Your task to perform on an android device: Open Android settings Image 0: 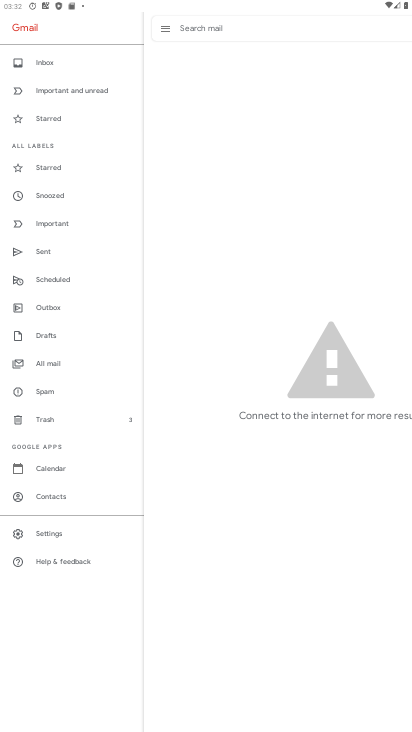
Step 0: press home button
Your task to perform on an android device: Open Android settings Image 1: 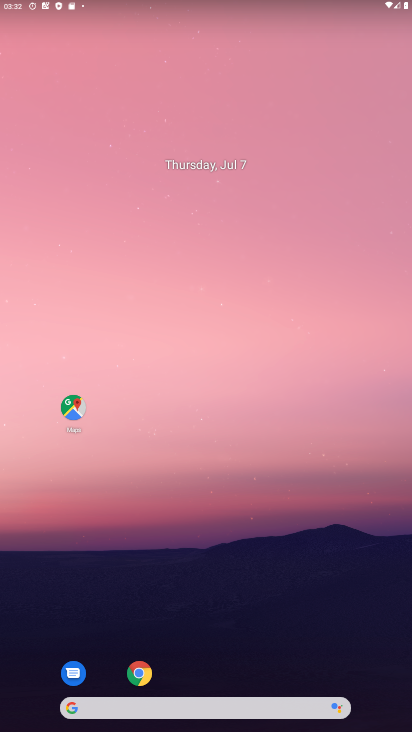
Step 1: drag from (216, 648) to (242, 135)
Your task to perform on an android device: Open Android settings Image 2: 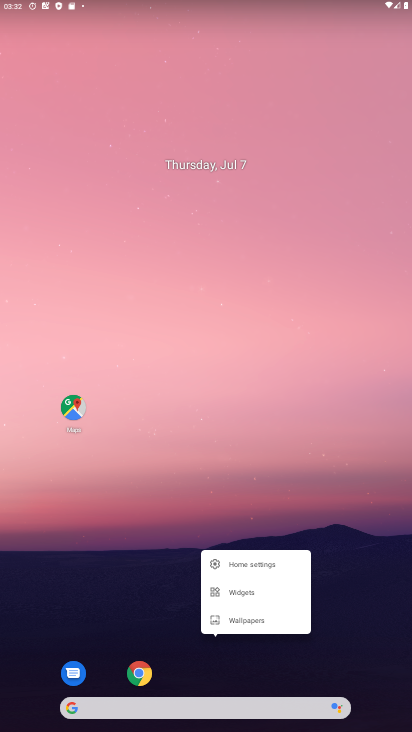
Step 2: drag from (181, 644) to (248, 152)
Your task to perform on an android device: Open Android settings Image 3: 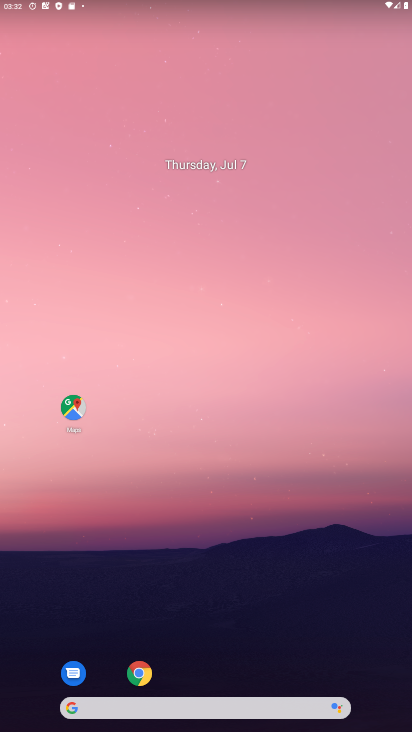
Step 3: drag from (212, 650) to (212, 133)
Your task to perform on an android device: Open Android settings Image 4: 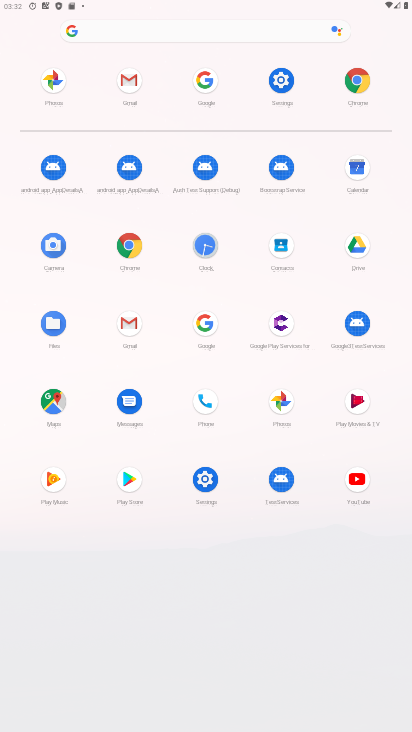
Step 4: click (267, 79)
Your task to perform on an android device: Open Android settings Image 5: 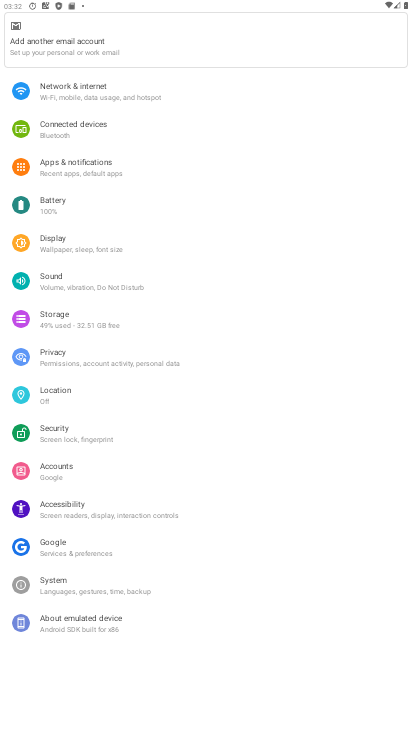
Step 5: task complete